Your task to perform on an android device: delete a single message in the gmail app Image 0: 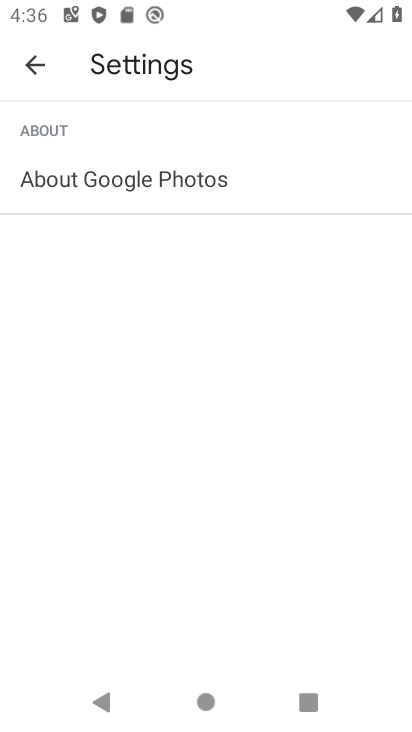
Step 0: press back button
Your task to perform on an android device: delete a single message in the gmail app Image 1: 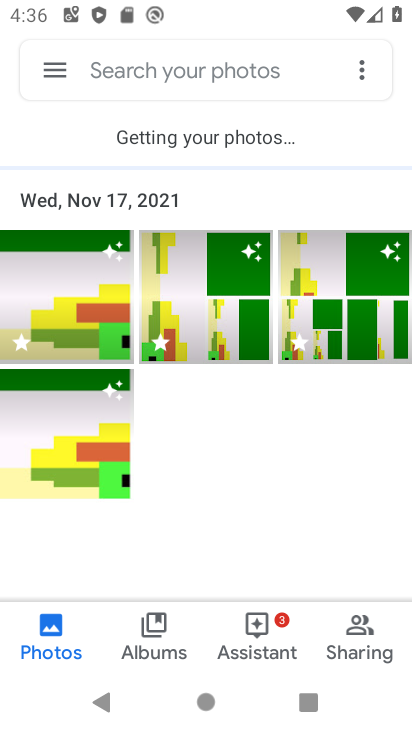
Step 1: press home button
Your task to perform on an android device: delete a single message in the gmail app Image 2: 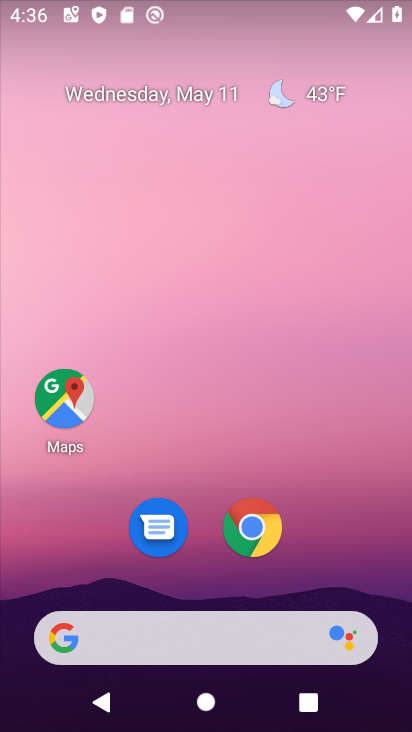
Step 2: drag from (213, 592) to (313, 4)
Your task to perform on an android device: delete a single message in the gmail app Image 3: 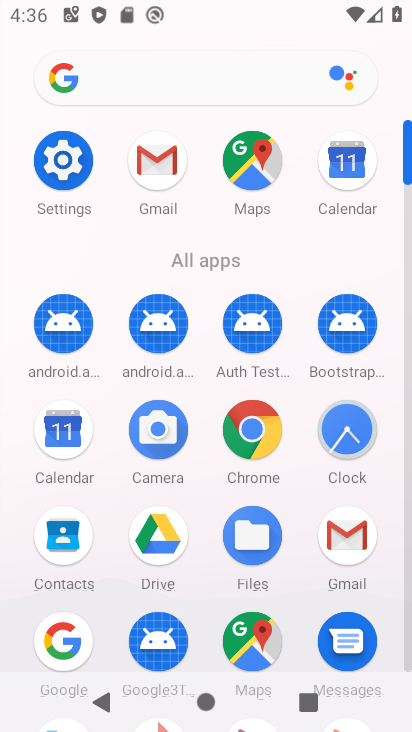
Step 3: click (330, 545)
Your task to perform on an android device: delete a single message in the gmail app Image 4: 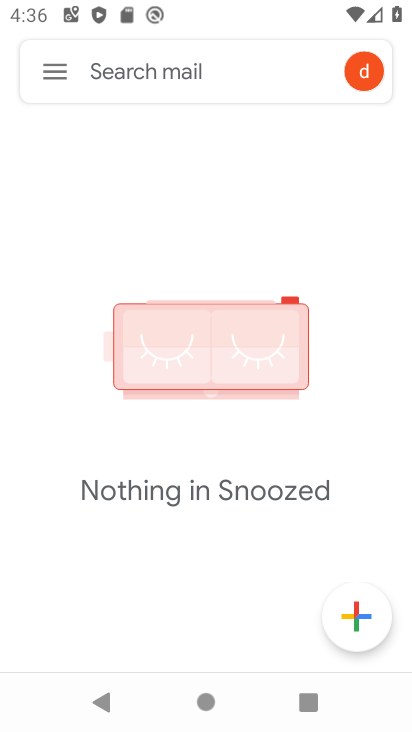
Step 4: click (41, 67)
Your task to perform on an android device: delete a single message in the gmail app Image 5: 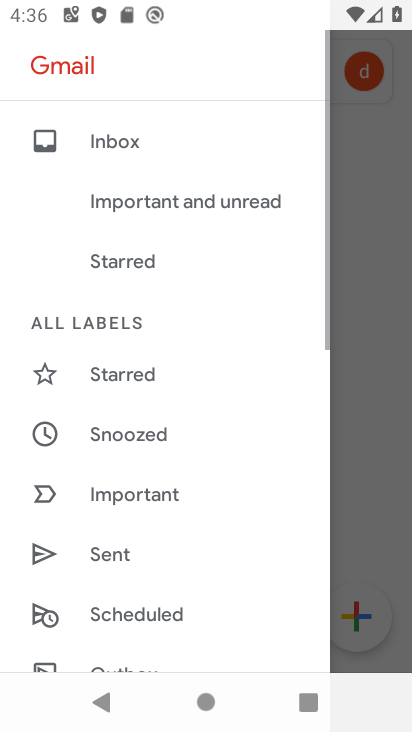
Step 5: drag from (128, 595) to (195, 312)
Your task to perform on an android device: delete a single message in the gmail app Image 6: 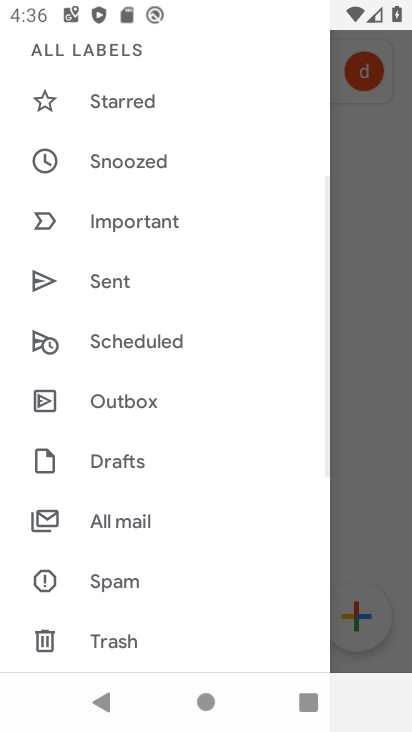
Step 6: click (155, 519)
Your task to perform on an android device: delete a single message in the gmail app Image 7: 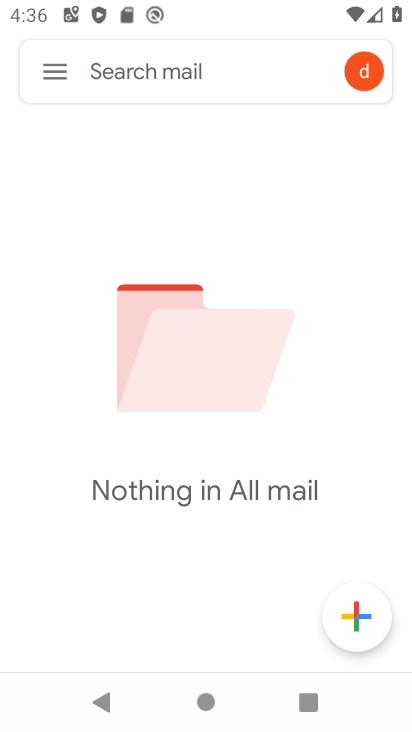
Step 7: task complete